Your task to perform on an android device: turn on the 12-hour format for clock Image 0: 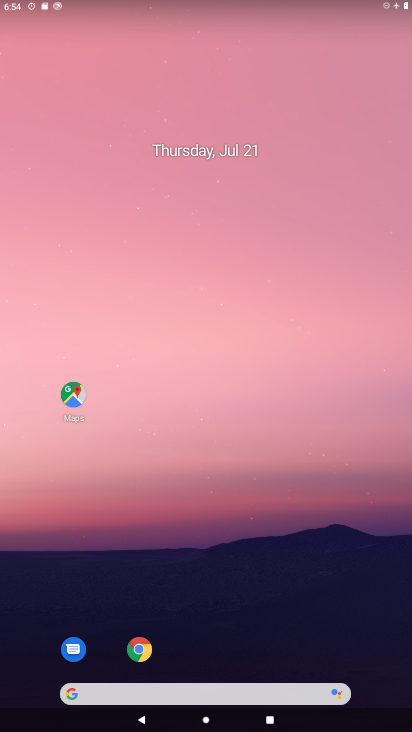
Step 0: drag from (343, 656) to (165, 26)
Your task to perform on an android device: turn on the 12-hour format for clock Image 1: 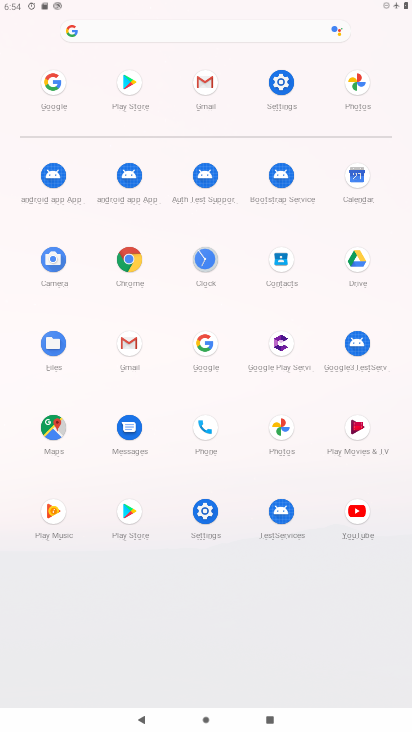
Step 1: click (207, 255)
Your task to perform on an android device: turn on the 12-hour format for clock Image 2: 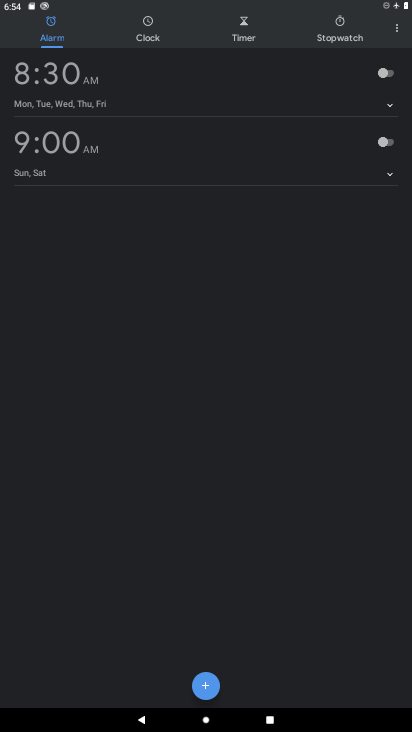
Step 2: click (395, 34)
Your task to perform on an android device: turn on the 12-hour format for clock Image 3: 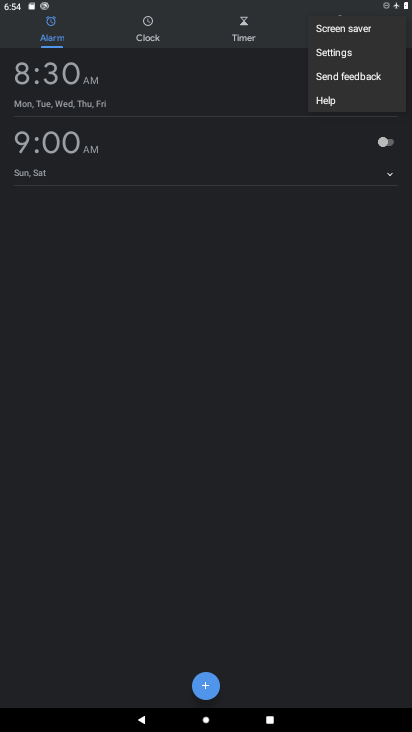
Step 3: click (332, 58)
Your task to perform on an android device: turn on the 12-hour format for clock Image 4: 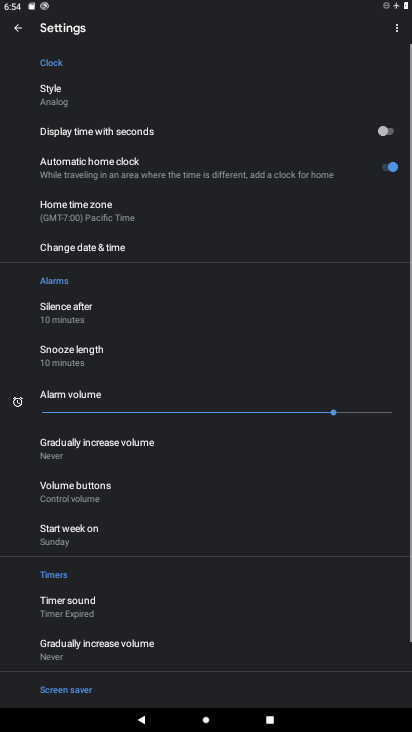
Step 4: click (120, 250)
Your task to perform on an android device: turn on the 12-hour format for clock Image 5: 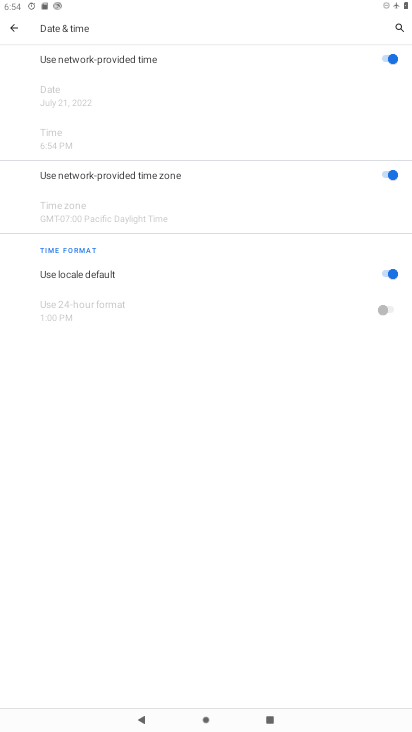
Step 5: task complete